Your task to perform on an android device: turn off sleep mode Image 0: 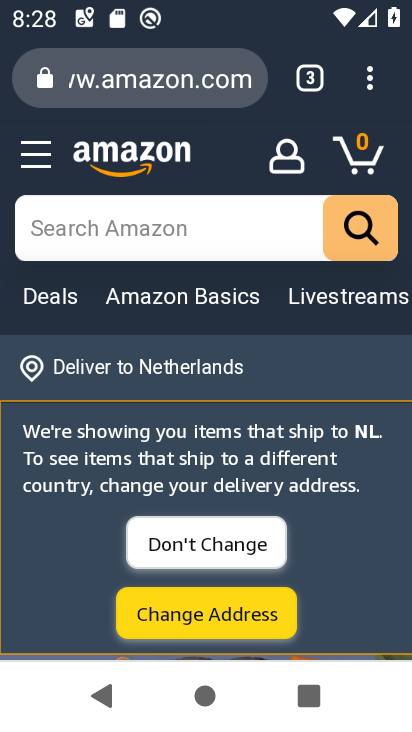
Step 0: press home button
Your task to perform on an android device: turn off sleep mode Image 1: 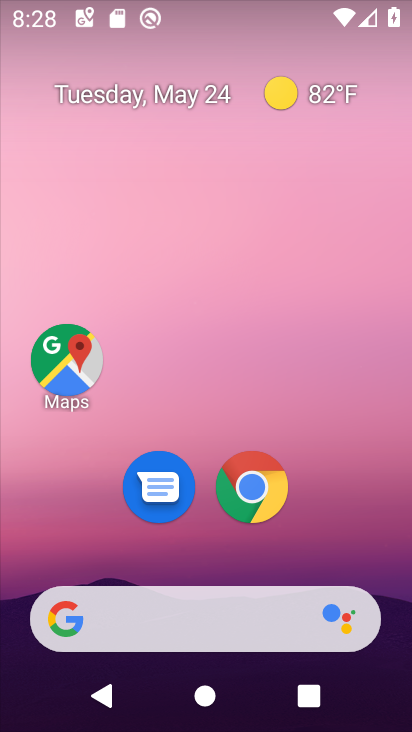
Step 1: drag from (374, 502) to (360, 93)
Your task to perform on an android device: turn off sleep mode Image 2: 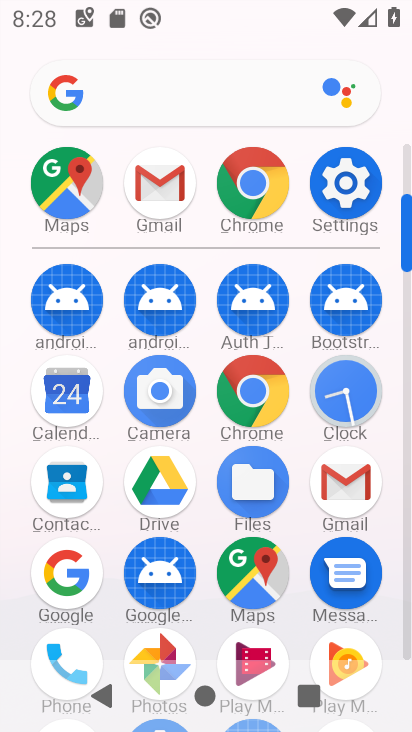
Step 2: click (343, 167)
Your task to perform on an android device: turn off sleep mode Image 3: 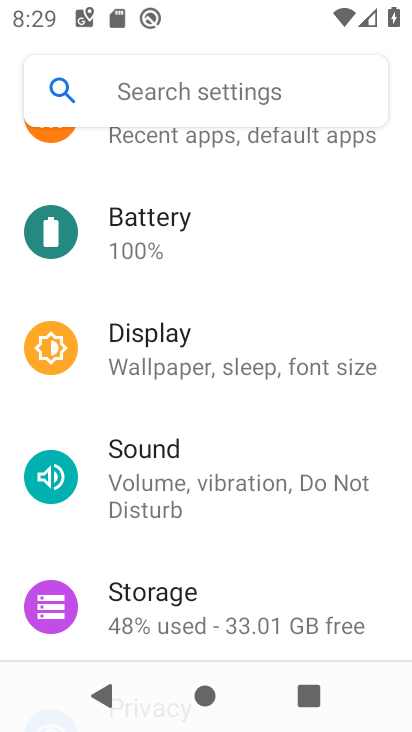
Step 3: click (220, 104)
Your task to perform on an android device: turn off sleep mode Image 4: 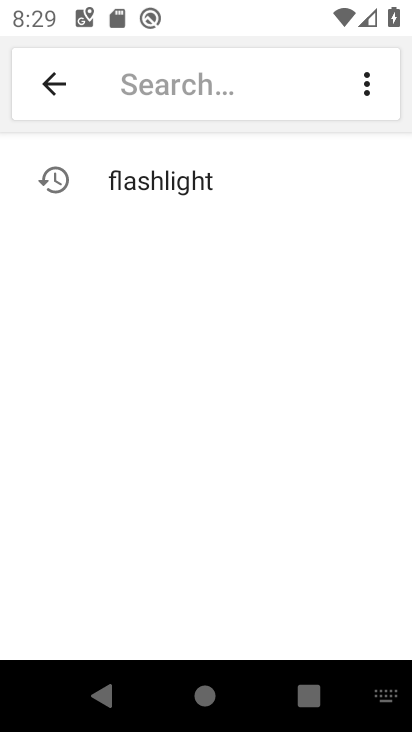
Step 4: type "sleep mode"
Your task to perform on an android device: turn off sleep mode Image 5: 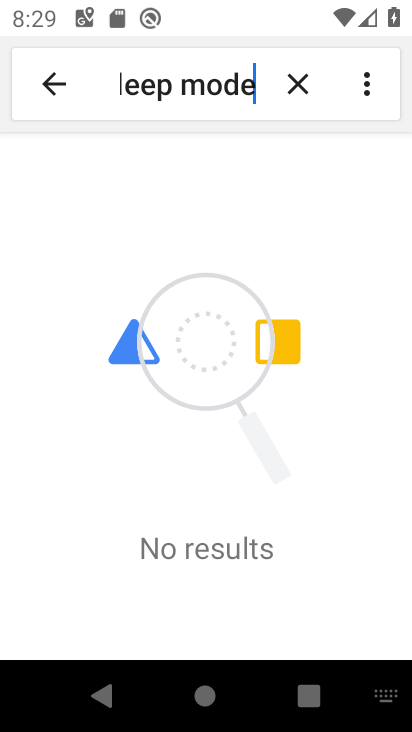
Step 5: task complete